Your task to perform on an android device: Search for vegetarian restaurants on Maps Image 0: 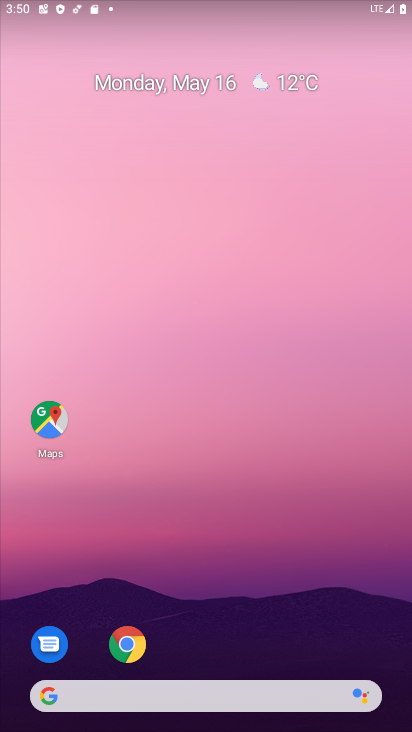
Step 0: click (63, 420)
Your task to perform on an android device: Search for vegetarian restaurants on Maps Image 1: 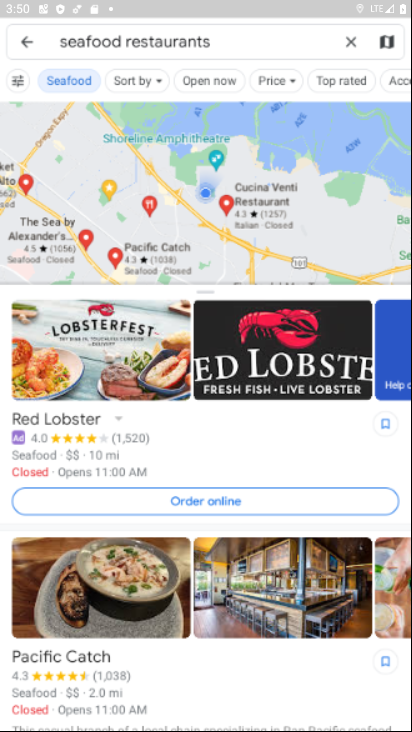
Step 1: click (340, 42)
Your task to perform on an android device: Search for vegetarian restaurants on Maps Image 2: 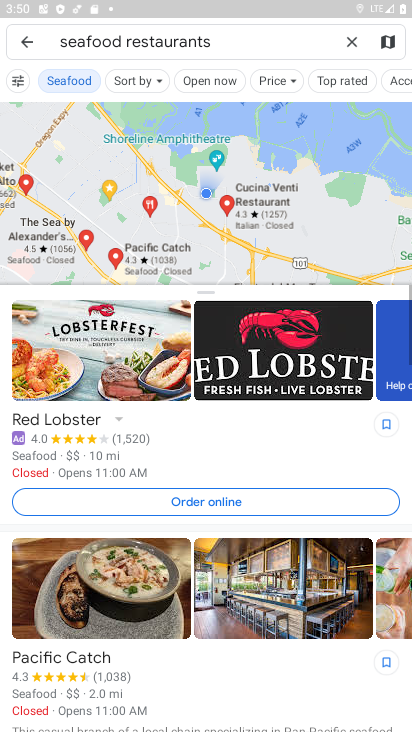
Step 2: click (354, 42)
Your task to perform on an android device: Search for vegetarian restaurants on Maps Image 3: 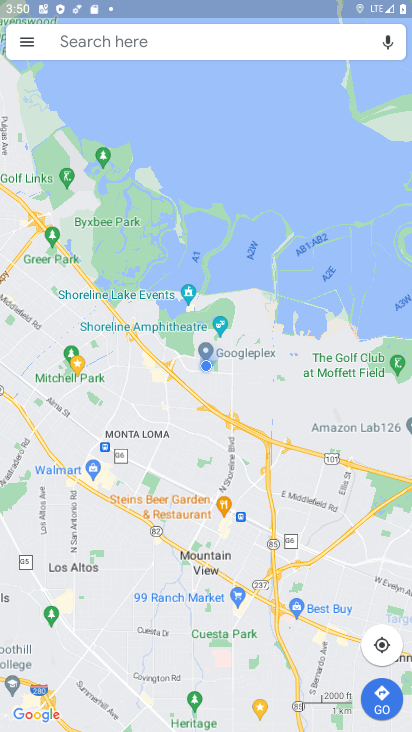
Step 3: click (186, 50)
Your task to perform on an android device: Search for vegetarian restaurants on Maps Image 4: 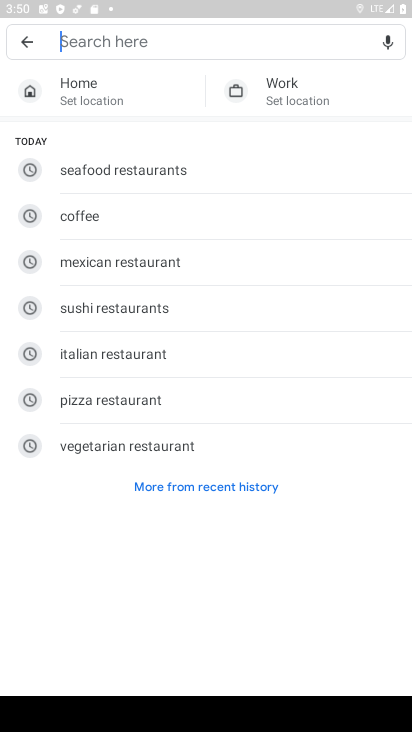
Step 4: click (105, 448)
Your task to perform on an android device: Search for vegetarian restaurants on Maps Image 5: 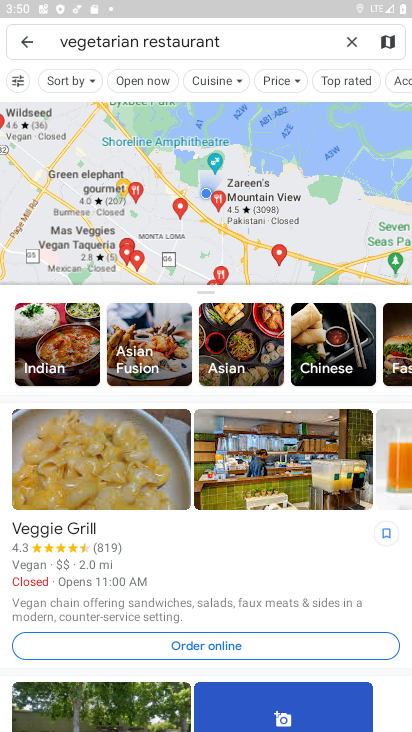
Step 5: task complete